Your task to perform on an android device: Do I have any events this weekend? Image 0: 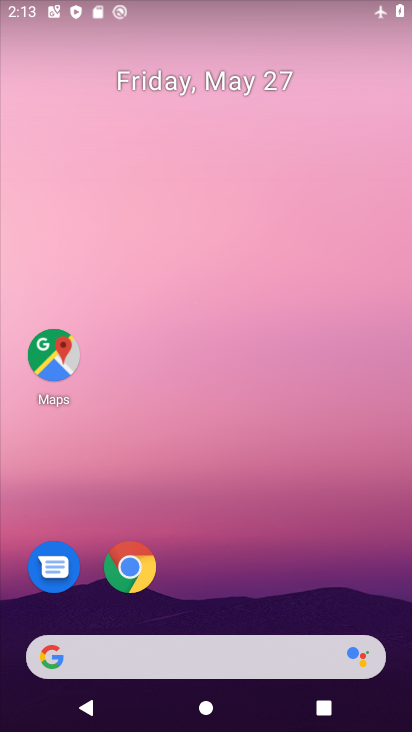
Step 0: drag from (212, 565) to (218, 123)
Your task to perform on an android device: Do I have any events this weekend? Image 1: 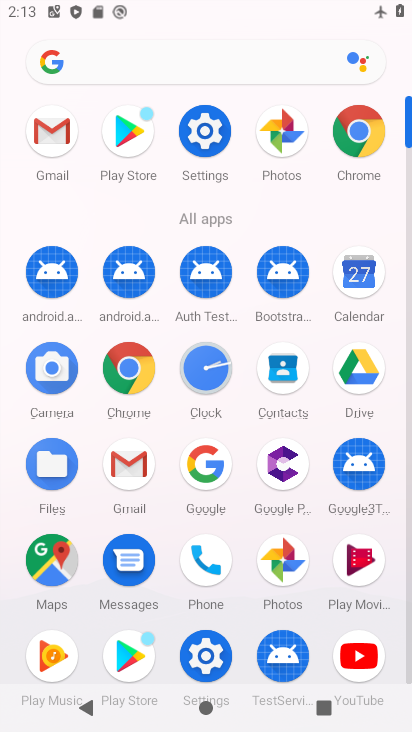
Step 1: click (353, 271)
Your task to perform on an android device: Do I have any events this weekend? Image 2: 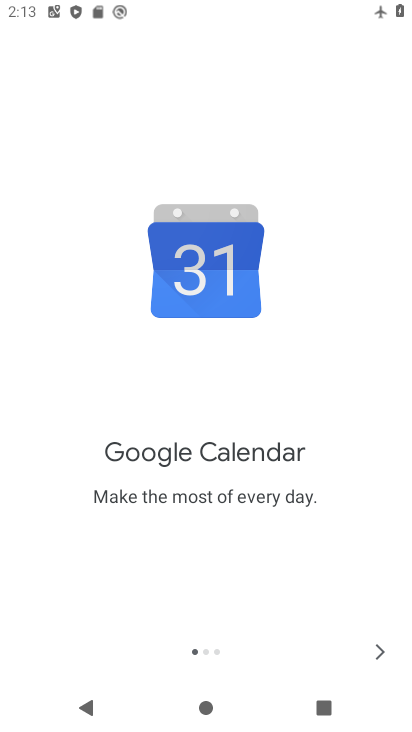
Step 2: click (376, 655)
Your task to perform on an android device: Do I have any events this weekend? Image 3: 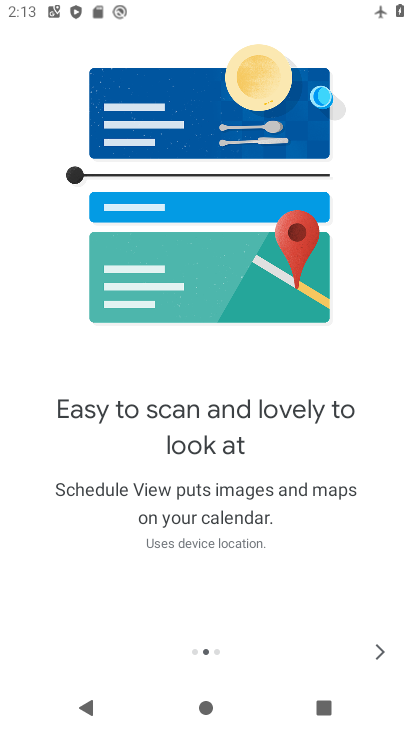
Step 3: click (376, 655)
Your task to perform on an android device: Do I have any events this weekend? Image 4: 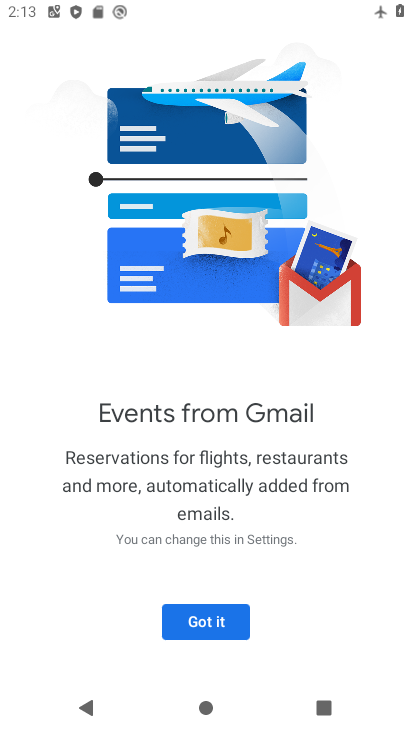
Step 4: click (185, 620)
Your task to perform on an android device: Do I have any events this weekend? Image 5: 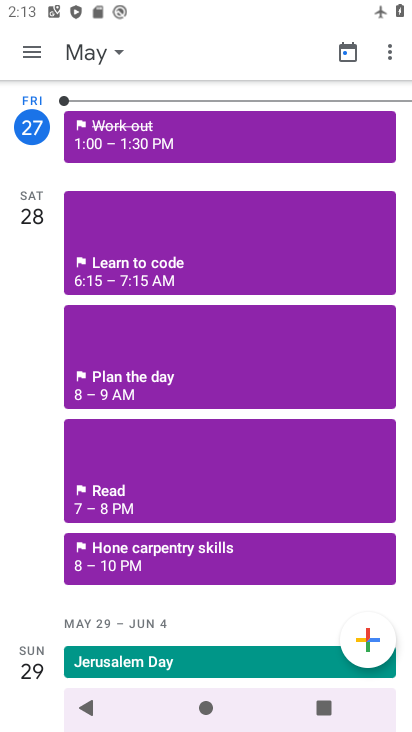
Step 5: click (93, 60)
Your task to perform on an android device: Do I have any events this weekend? Image 6: 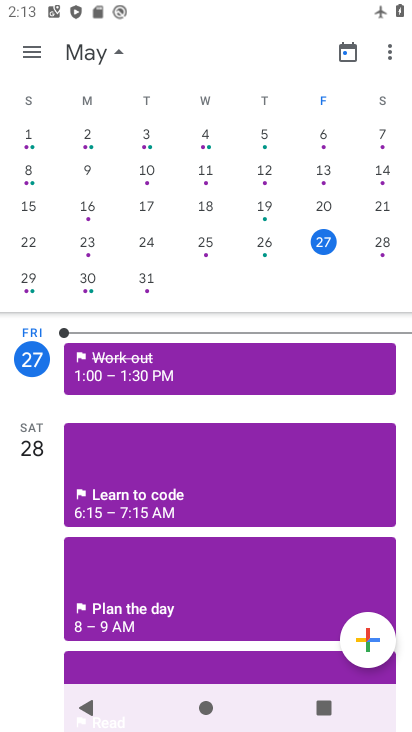
Step 6: click (323, 240)
Your task to perform on an android device: Do I have any events this weekend? Image 7: 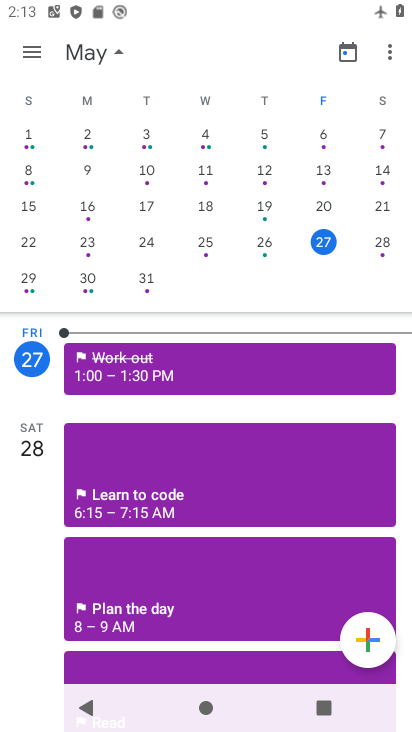
Step 7: task complete